Your task to perform on an android device: toggle notification dots Image 0: 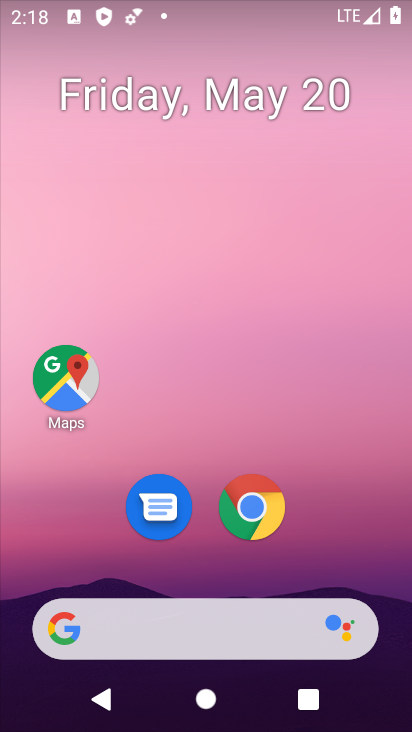
Step 0: drag from (207, 589) to (273, 117)
Your task to perform on an android device: toggle notification dots Image 1: 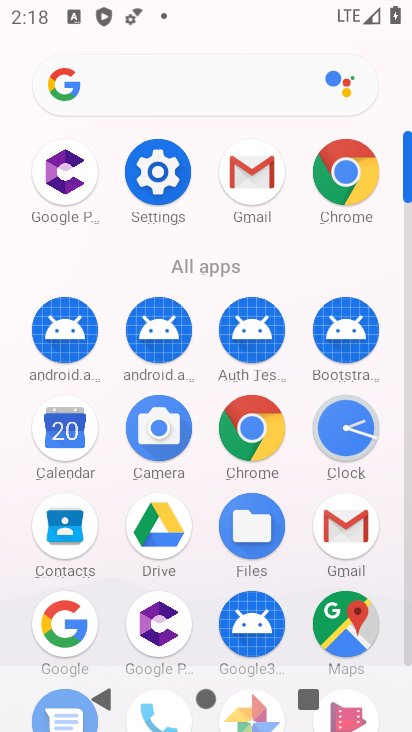
Step 1: click (180, 173)
Your task to perform on an android device: toggle notification dots Image 2: 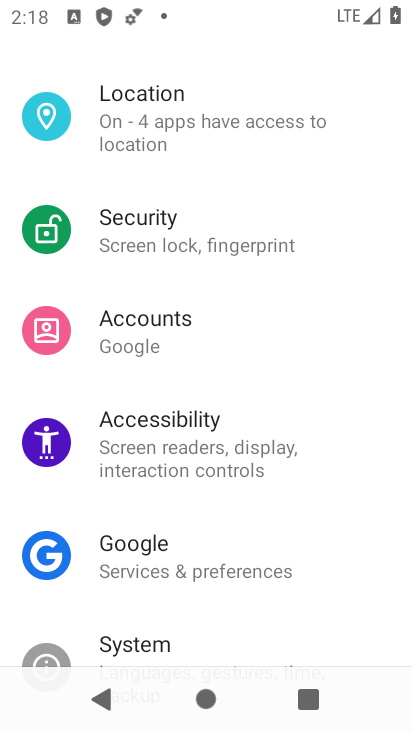
Step 2: drag from (134, 582) to (145, 292)
Your task to perform on an android device: toggle notification dots Image 3: 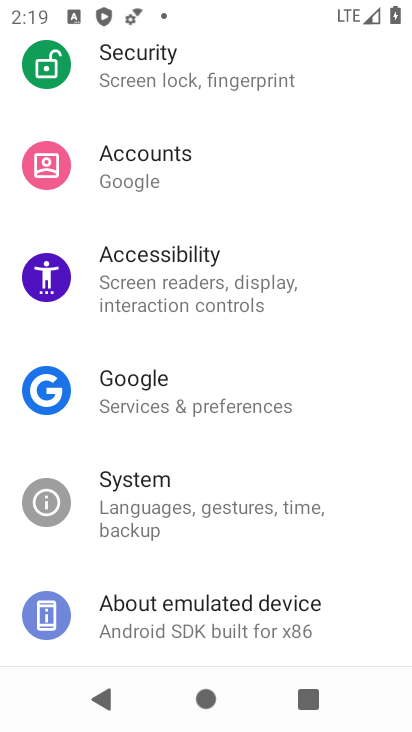
Step 3: drag from (188, 75) to (169, 644)
Your task to perform on an android device: toggle notification dots Image 4: 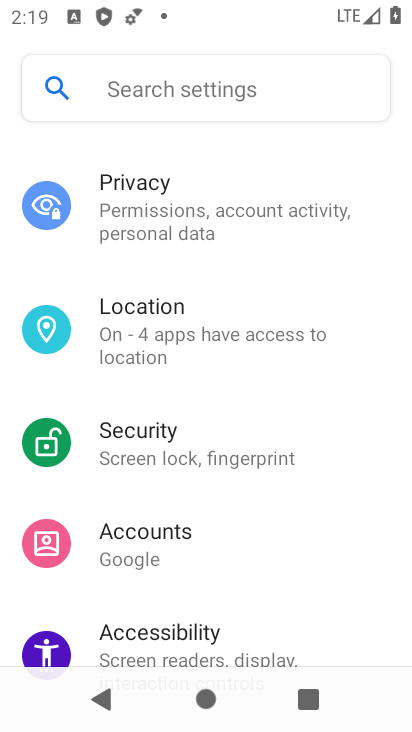
Step 4: drag from (171, 261) to (202, 621)
Your task to perform on an android device: toggle notification dots Image 5: 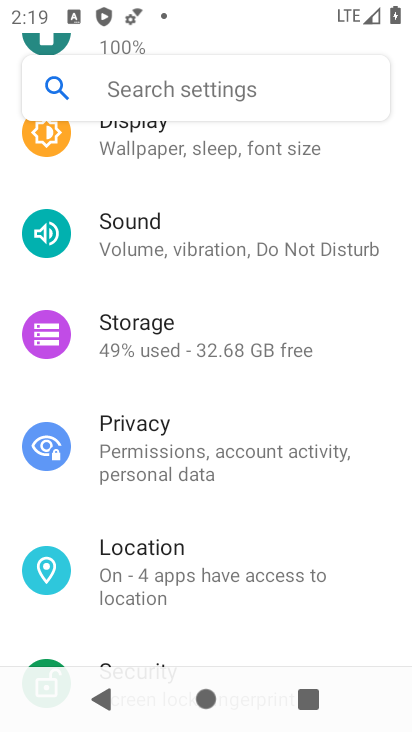
Step 5: drag from (210, 147) to (262, 545)
Your task to perform on an android device: toggle notification dots Image 6: 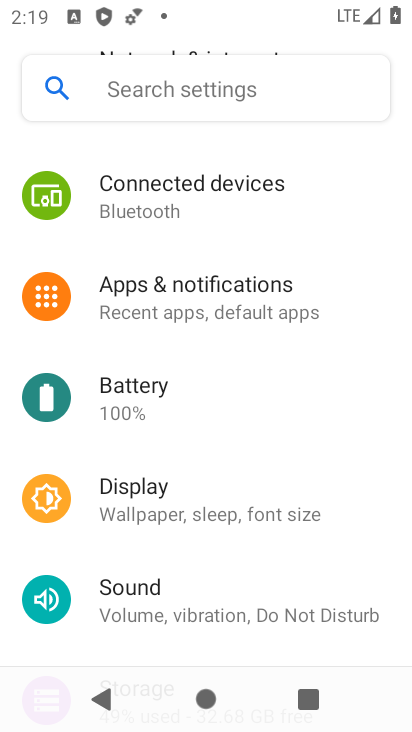
Step 6: click (213, 317)
Your task to perform on an android device: toggle notification dots Image 7: 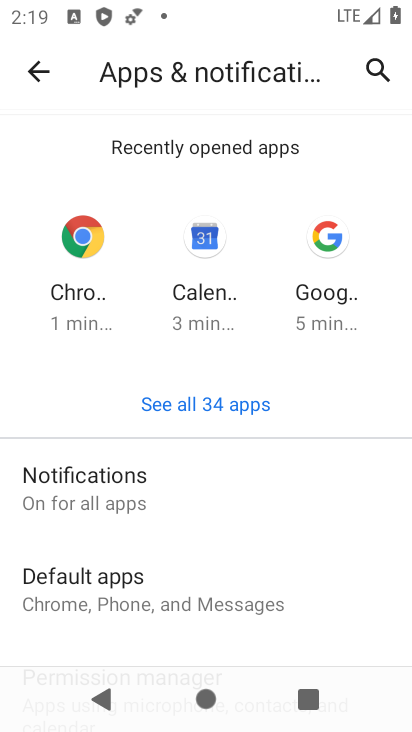
Step 7: drag from (101, 604) to (218, 109)
Your task to perform on an android device: toggle notification dots Image 8: 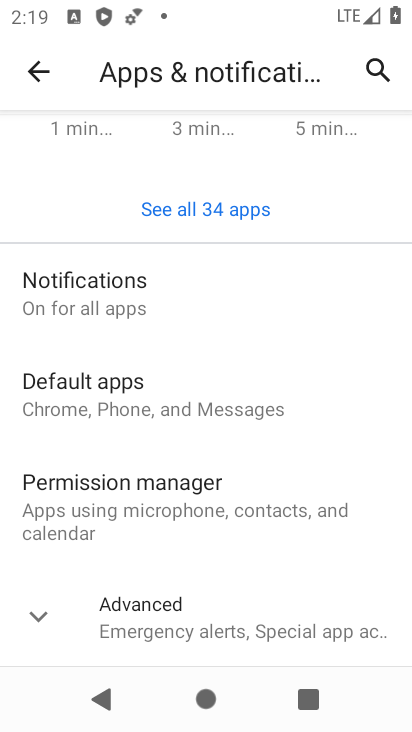
Step 8: click (160, 590)
Your task to perform on an android device: toggle notification dots Image 9: 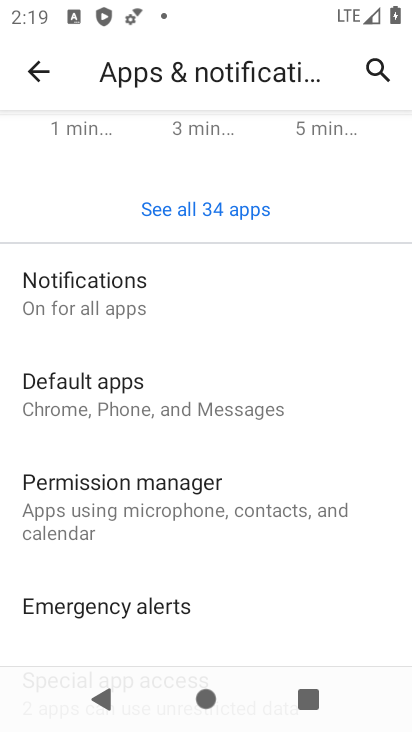
Step 9: click (129, 317)
Your task to perform on an android device: toggle notification dots Image 10: 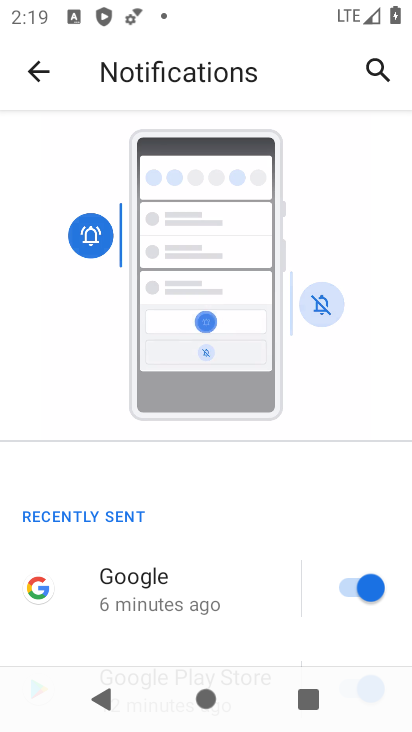
Step 10: drag from (115, 610) to (142, 145)
Your task to perform on an android device: toggle notification dots Image 11: 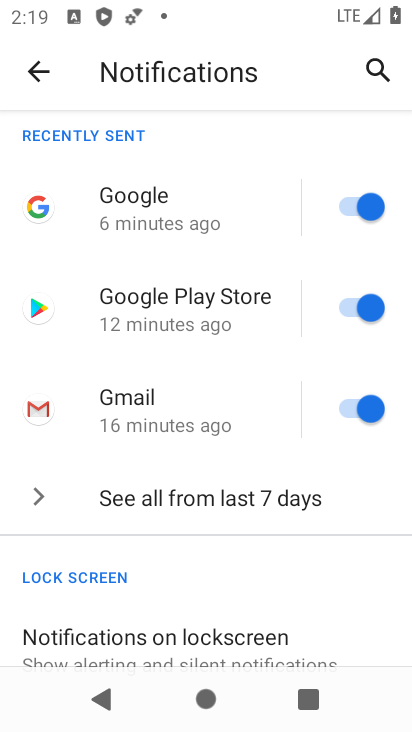
Step 11: drag from (87, 612) to (181, 222)
Your task to perform on an android device: toggle notification dots Image 12: 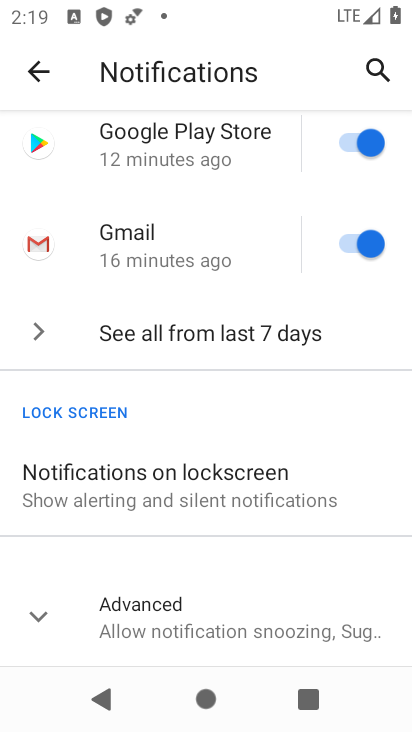
Step 12: drag from (228, 659) to (288, 249)
Your task to perform on an android device: toggle notification dots Image 13: 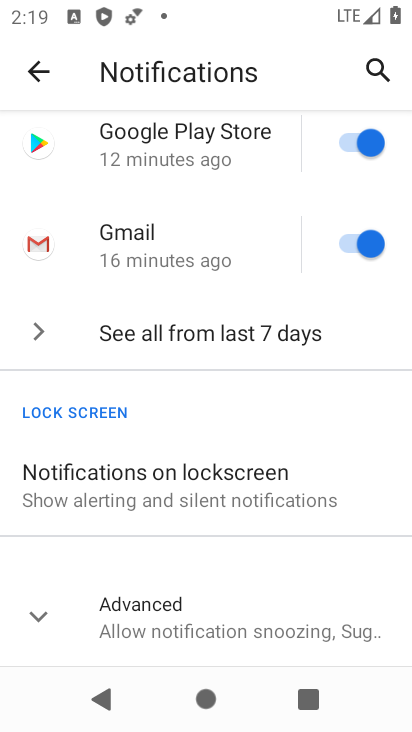
Step 13: click (213, 634)
Your task to perform on an android device: toggle notification dots Image 14: 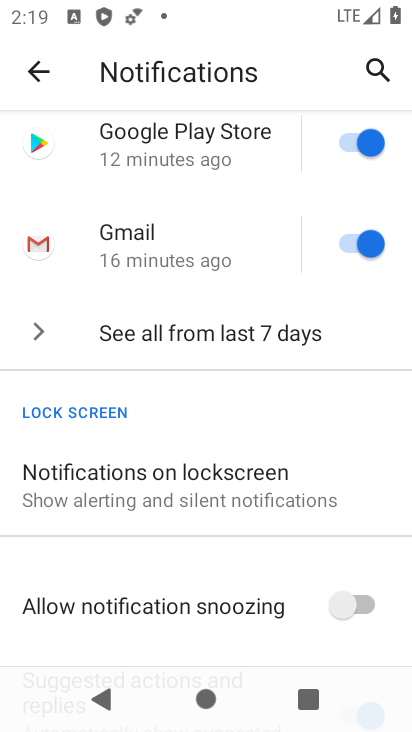
Step 14: drag from (213, 634) to (238, 318)
Your task to perform on an android device: toggle notification dots Image 15: 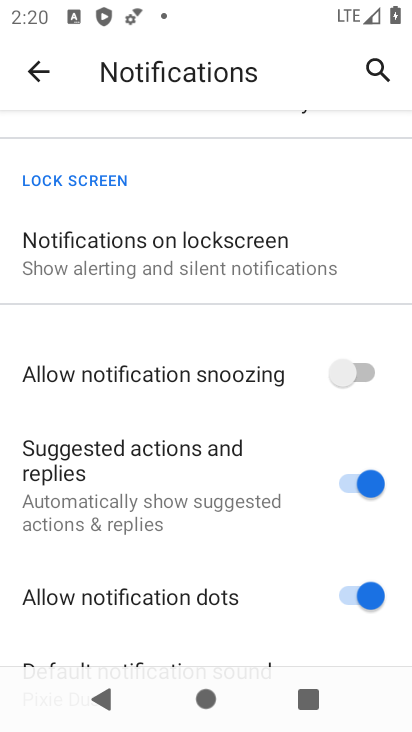
Step 15: click (354, 595)
Your task to perform on an android device: toggle notification dots Image 16: 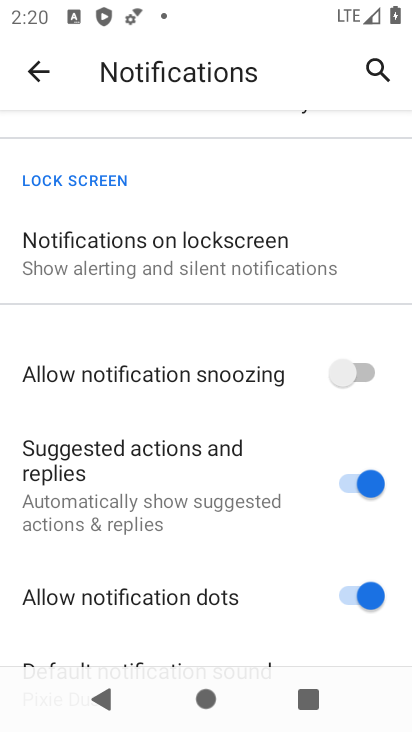
Step 16: click (354, 595)
Your task to perform on an android device: toggle notification dots Image 17: 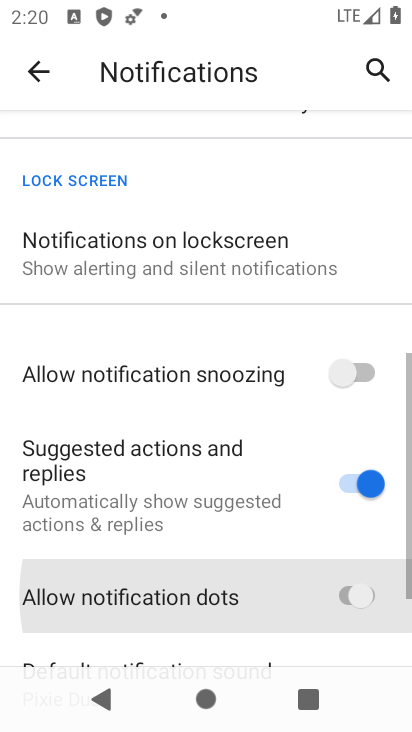
Step 17: click (354, 595)
Your task to perform on an android device: toggle notification dots Image 18: 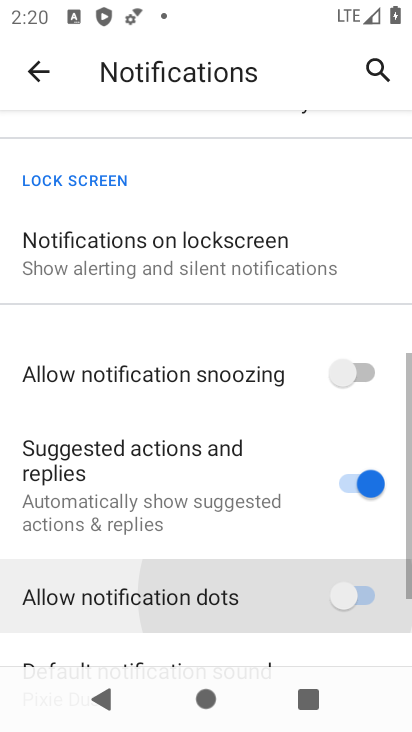
Step 18: click (354, 595)
Your task to perform on an android device: toggle notification dots Image 19: 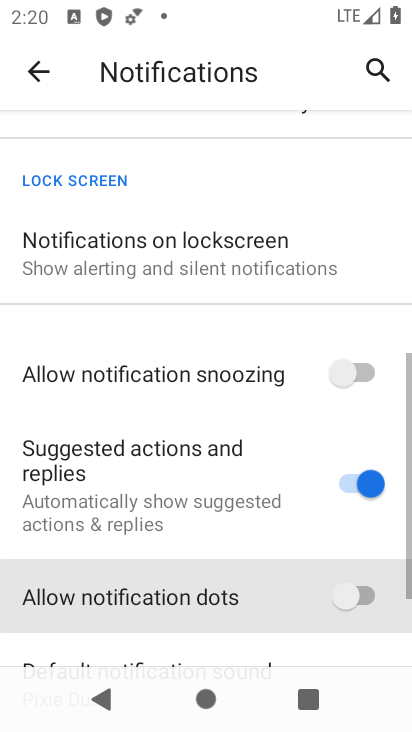
Step 19: click (354, 595)
Your task to perform on an android device: toggle notification dots Image 20: 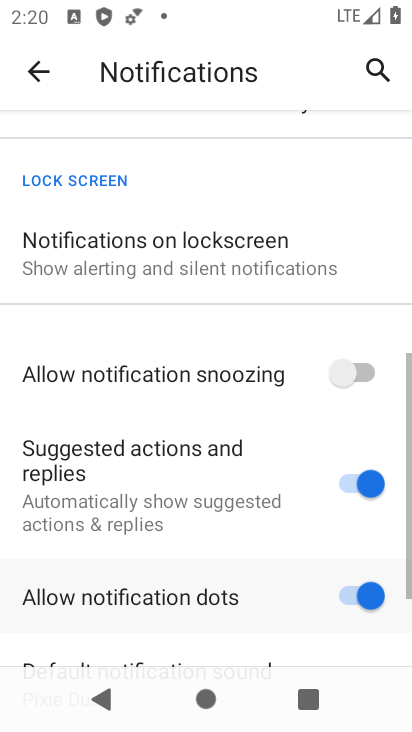
Step 20: click (354, 595)
Your task to perform on an android device: toggle notification dots Image 21: 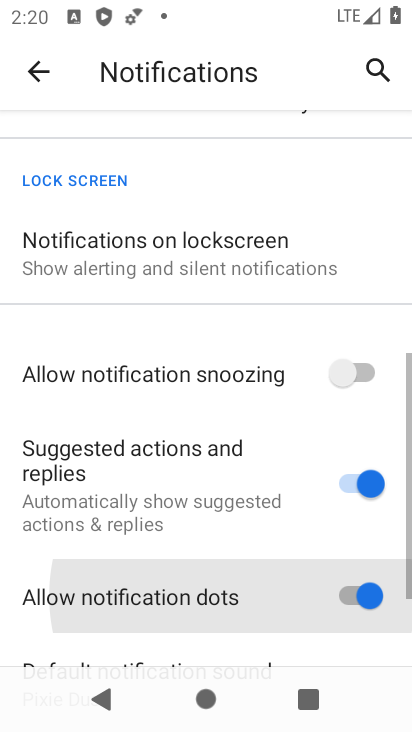
Step 21: click (354, 595)
Your task to perform on an android device: toggle notification dots Image 22: 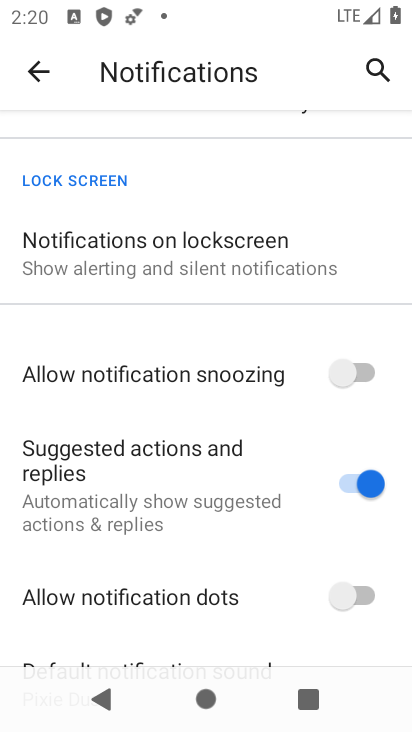
Step 22: task complete